Your task to perform on an android device: Go to internet settings Image 0: 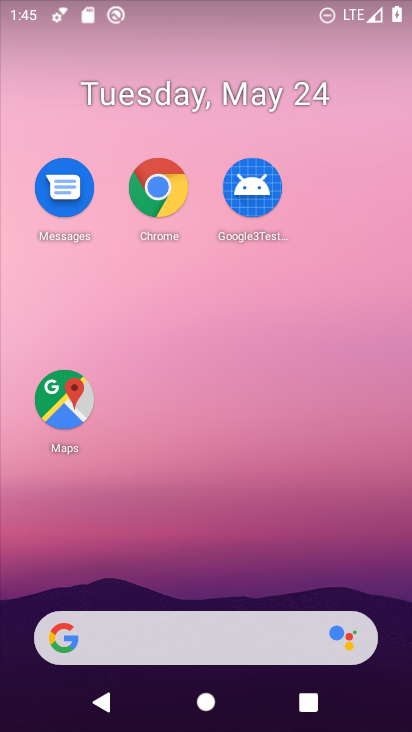
Step 0: drag from (177, 571) to (213, 0)
Your task to perform on an android device: Go to internet settings Image 1: 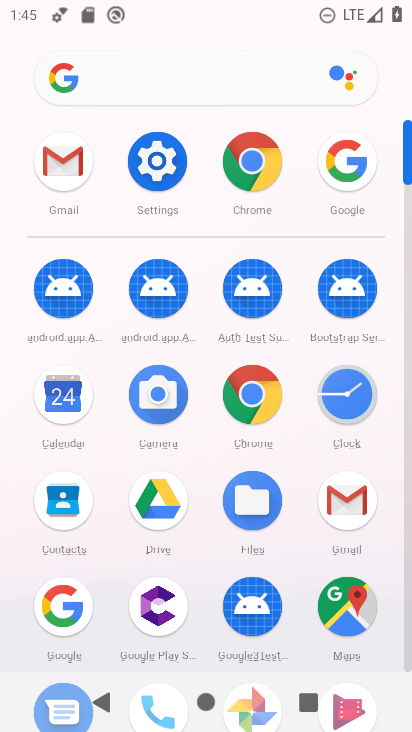
Step 1: click (164, 159)
Your task to perform on an android device: Go to internet settings Image 2: 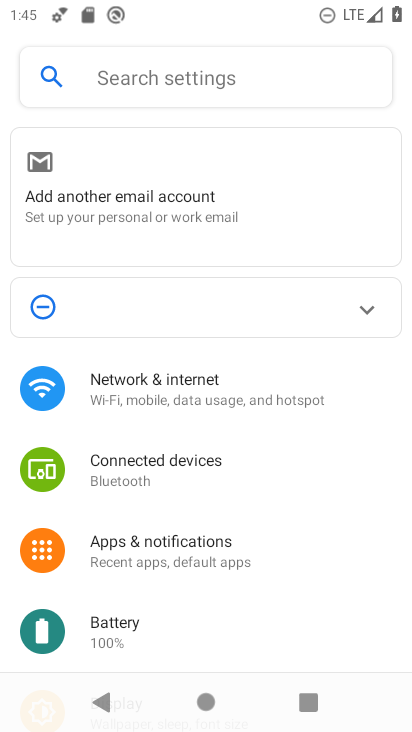
Step 2: click (182, 398)
Your task to perform on an android device: Go to internet settings Image 3: 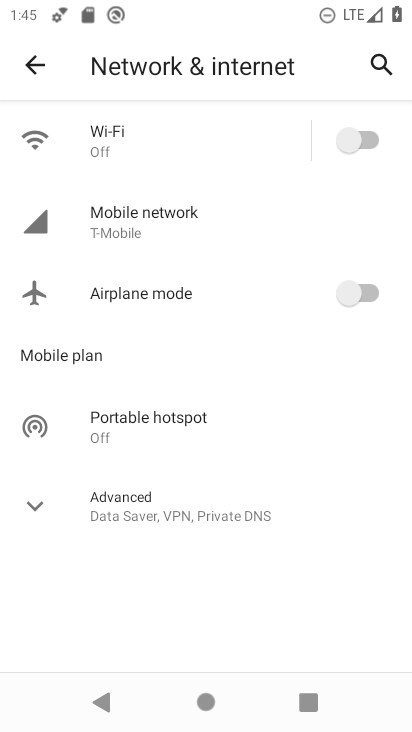
Step 3: task complete